Your task to perform on an android device: toggle javascript in the chrome app Image 0: 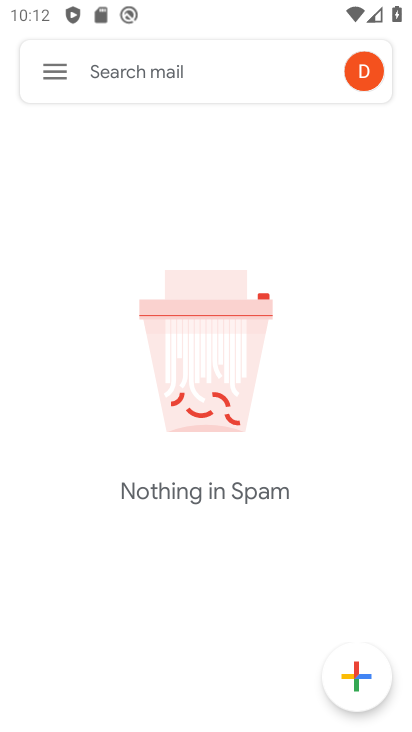
Step 0: press home button
Your task to perform on an android device: toggle javascript in the chrome app Image 1: 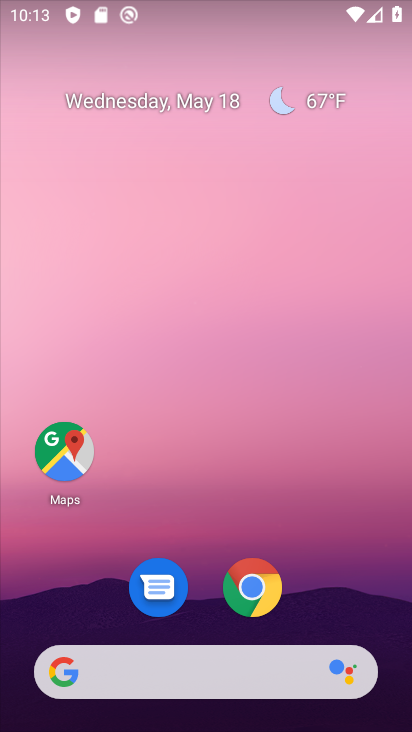
Step 1: click (250, 580)
Your task to perform on an android device: toggle javascript in the chrome app Image 2: 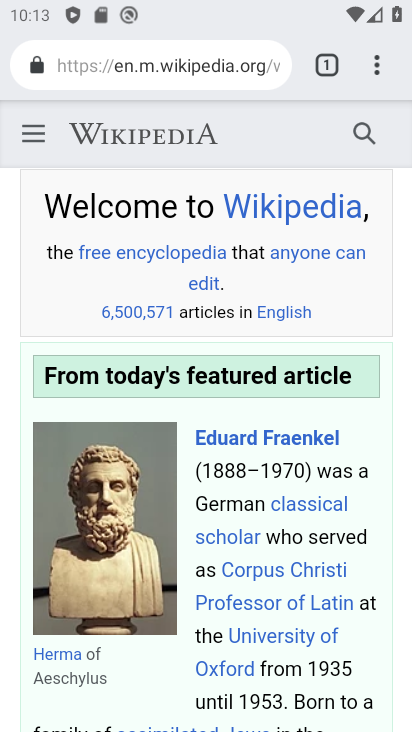
Step 2: click (372, 55)
Your task to perform on an android device: toggle javascript in the chrome app Image 3: 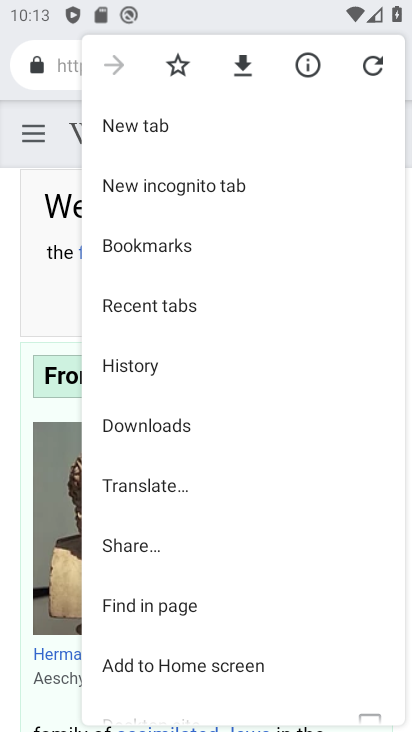
Step 3: drag from (197, 562) to (267, 125)
Your task to perform on an android device: toggle javascript in the chrome app Image 4: 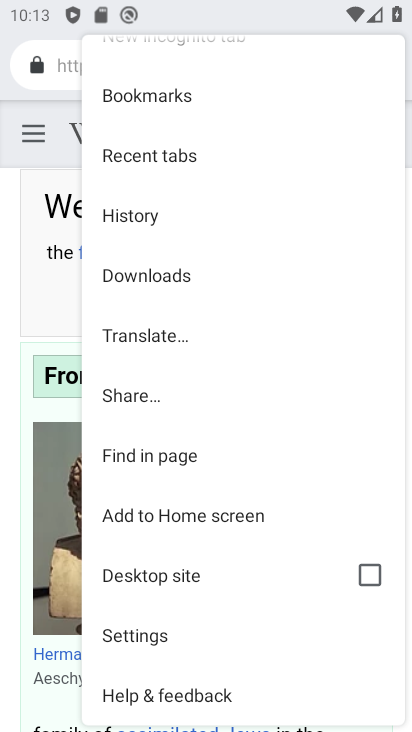
Step 4: drag from (205, 634) to (270, 216)
Your task to perform on an android device: toggle javascript in the chrome app Image 5: 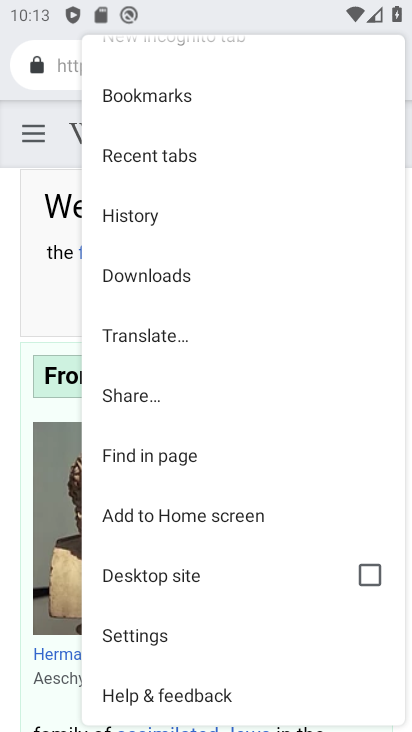
Step 5: click (170, 636)
Your task to perform on an android device: toggle javascript in the chrome app Image 6: 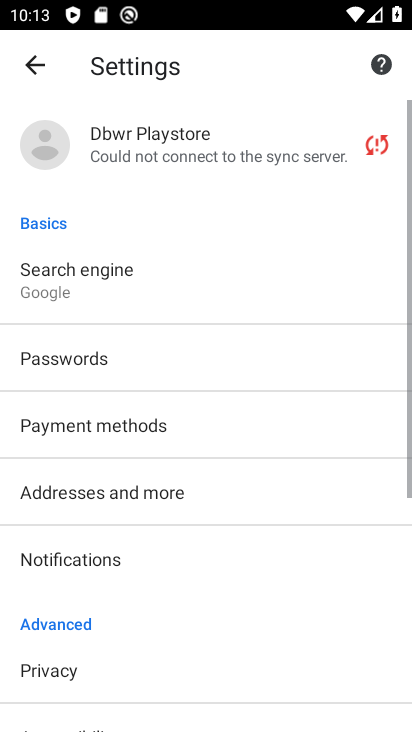
Step 6: drag from (167, 594) to (248, 153)
Your task to perform on an android device: toggle javascript in the chrome app Image 7: 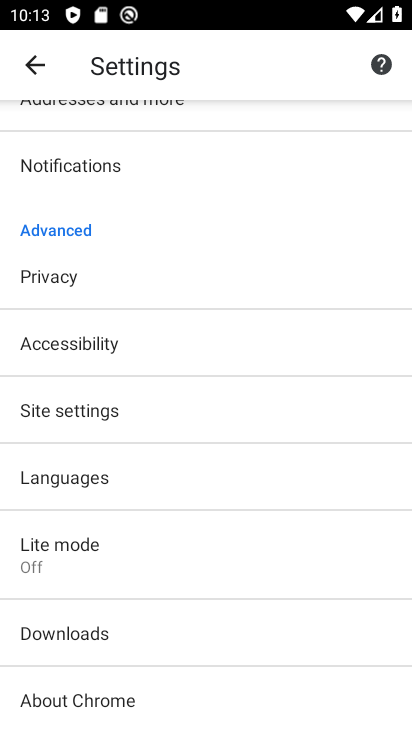
Step 7: click (142, 407)
Your task to perform on an android device: toggle javascript in the chrome app Image 8: 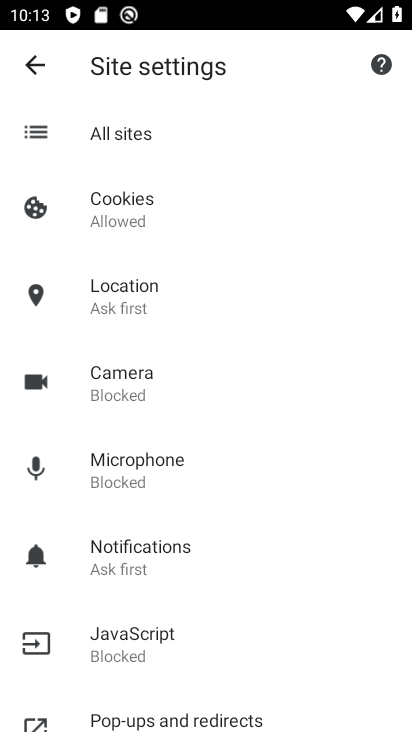
Step 8: click (133, 657)
Your task to perform on an android device: toggle javascript in the chrome app Image 9: 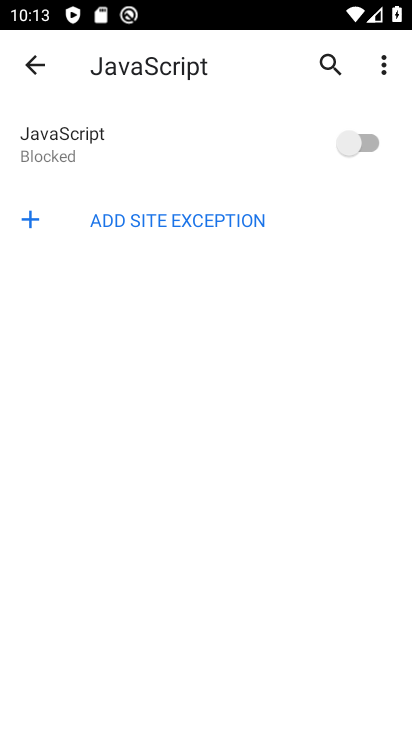
Step 9: click (348, 144)
Your task to perform on an android device: toggle javascript in the chrome app Image 10: 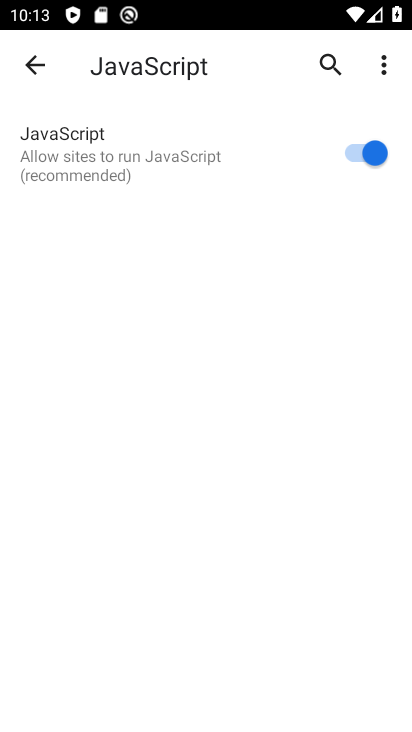
Step 10: task complete